Your task to perform on an android device: Open Google Chrome Image 0: 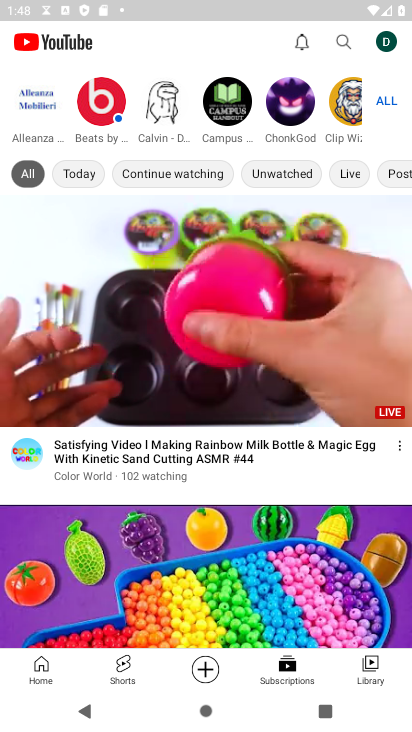
Step 0: click (232, 472)
Your task to perform on an android device: Open Google Chrome Image 1: 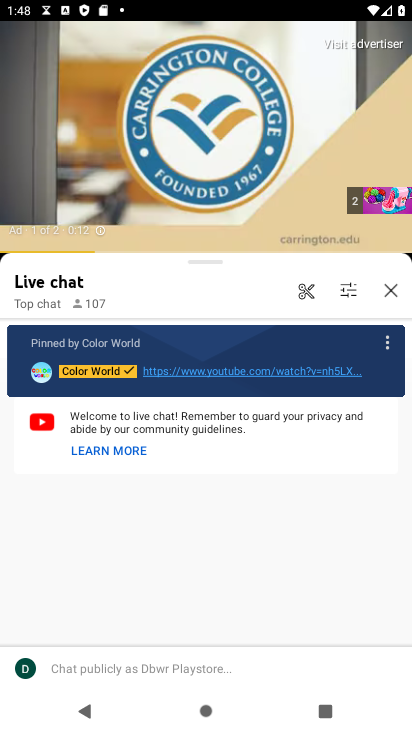
Step 1: press home button
Your task to perform on an android device: Open Google Chrome Image 2: 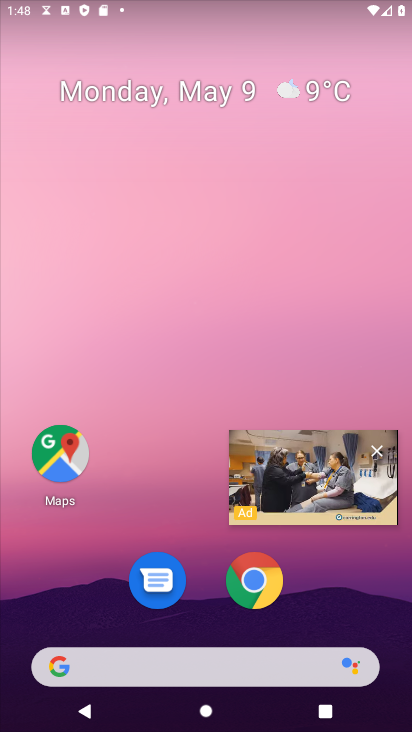
Step 2: click (259, 583)
Your task to perform on an android device: Open Google Chrome Image 3: 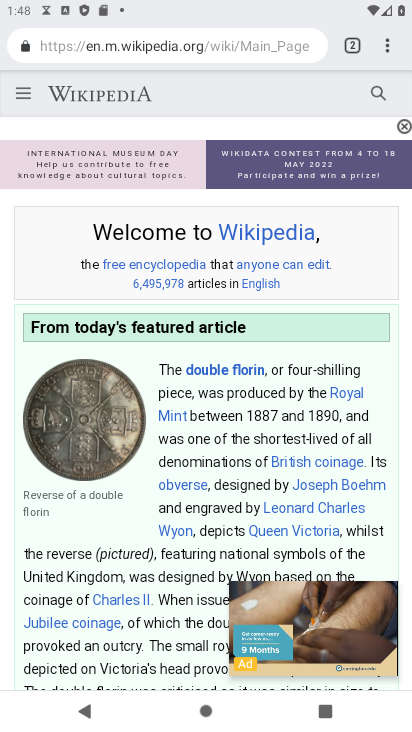
Step 3: task complete